Your task to perform on an android device: Go to privacy settings Image 0: 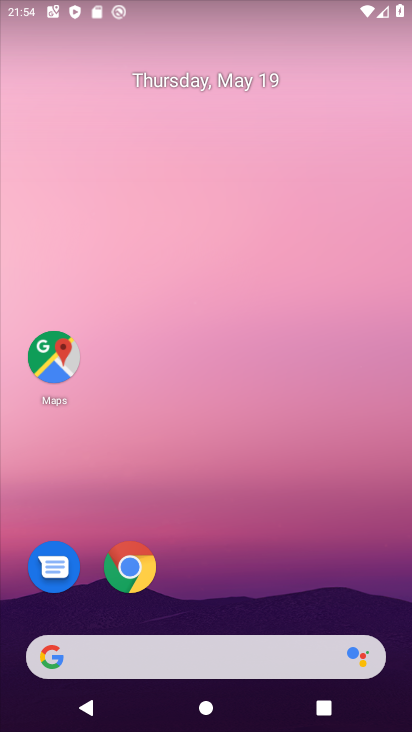
Step 0: drag from (210, 606) to (205, 81)
Your task to perform on an android device: Go to privacy settings Image 1: 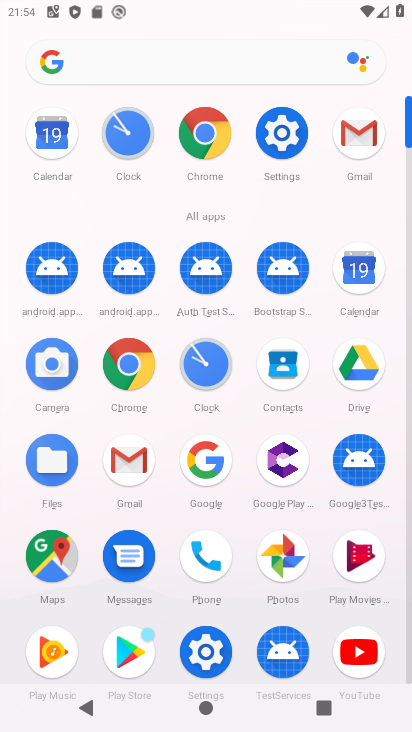
Step 1: click (276, 120)
Your task to perform on an android device: Go to privacy settings Image 2: 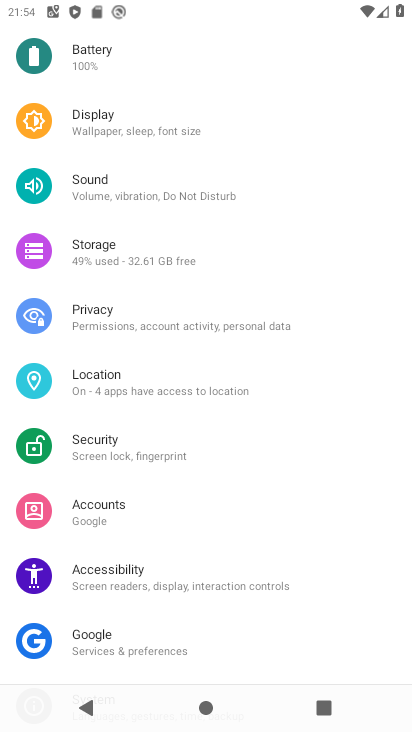
Step 2: click (146, 317)
Your task to perform on an android device: Go to privacy settings Image 3: 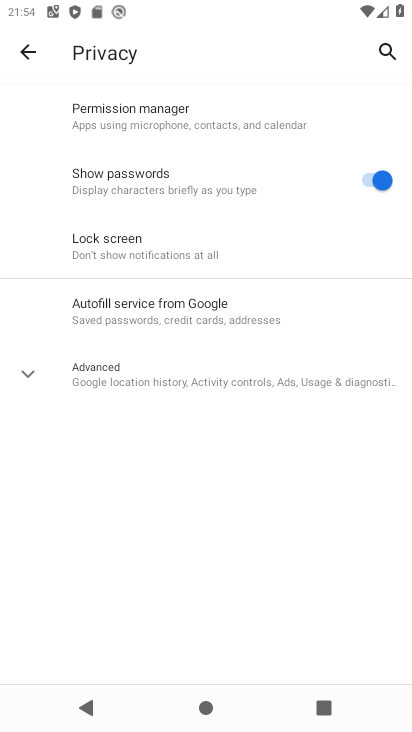
Step 3: click (34, 372)
Your task to perform on an android device: Go to privacy settings Image 4: 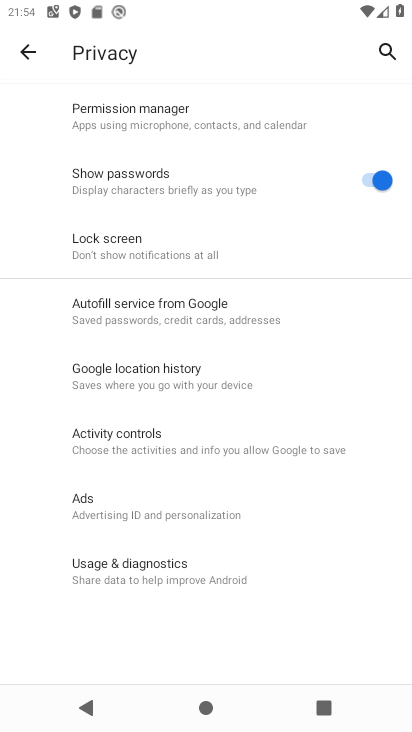
Step 4: task complete